Your task to perform on an android device: toggle notification dots Image 0: 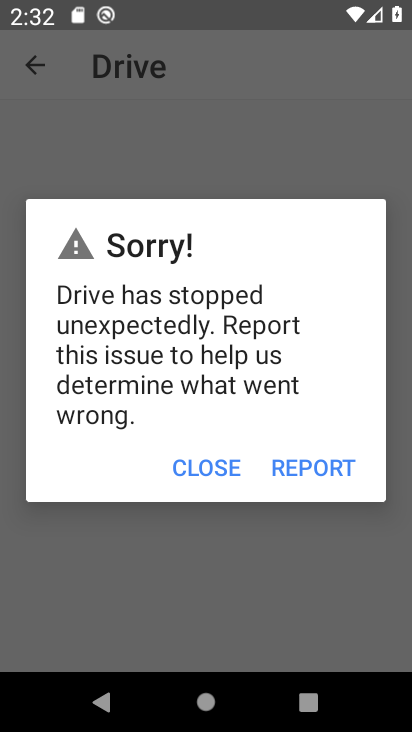
Step 0: press home button
Your task to perform on an android device: toggle notification dots Image 1: 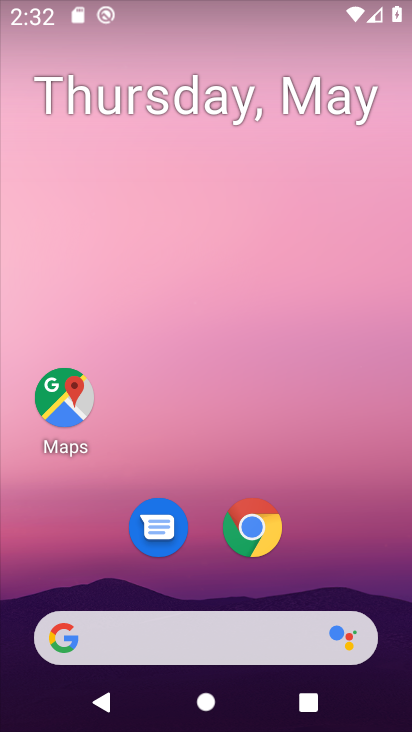
Step 1: drag from (350, 609) to (331, 31)
Your task to perform on an android device: toggle notification dots Image 2: 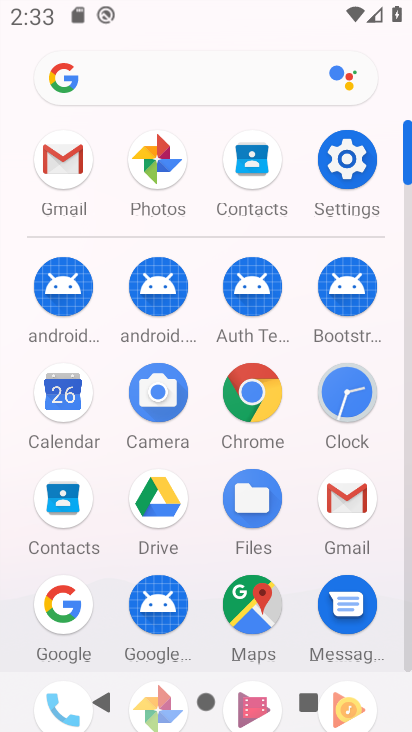
Step 2: click (318, 172)
Your task to perform on an android device: toggle notification dots Image 3: 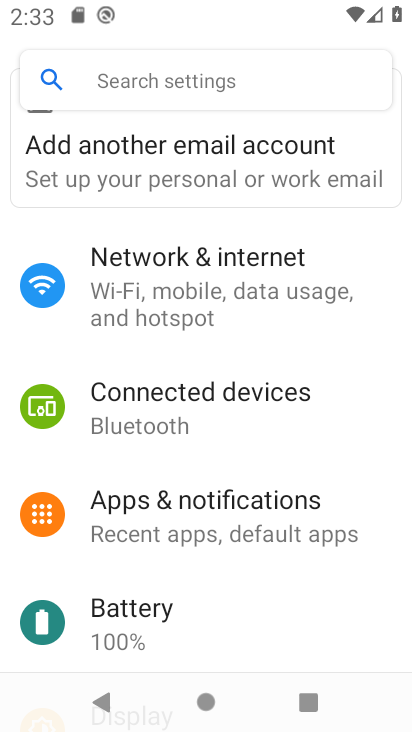
Step 3: click (177, 528)
Your task to perform on an android device: toggle notification dots Image 4: 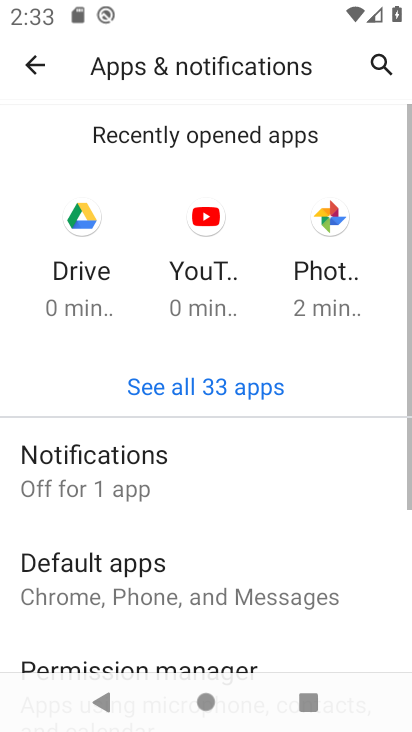
Step 4: click (169, 447)
Your task to perform on an android device: toggle notification dots Image 5: 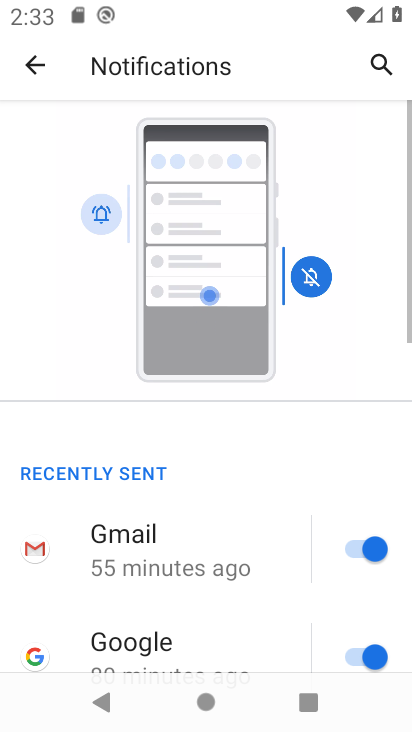
Step 5: drag from (192, 622) to (224, 107)
Your task to perform on an android device: toggle notification dots Image 6: 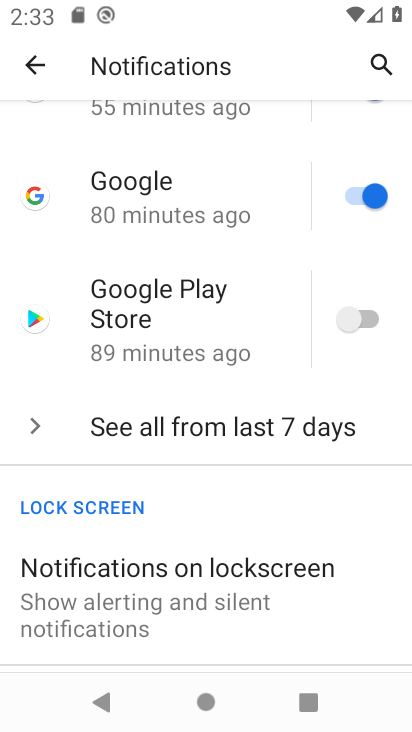
Step 6: drag from (202, 555) to (205, 424)
Your task to perform on an android device: toggle notification dots Image 7: 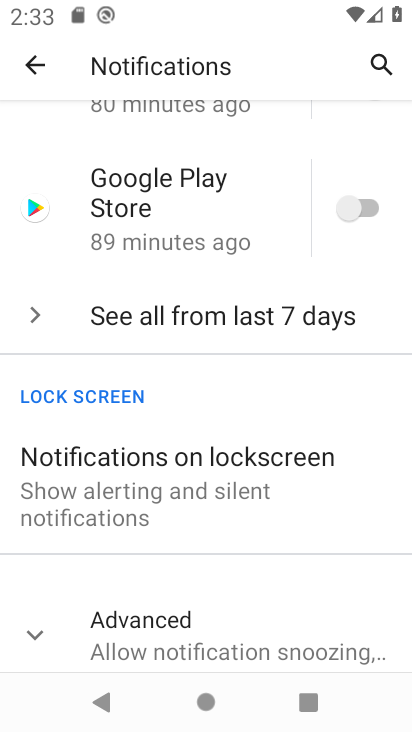
Step 7: drag from (200, 622) to (272, 163)
Your task to perform on an android device: toggle notification dots Image 8: 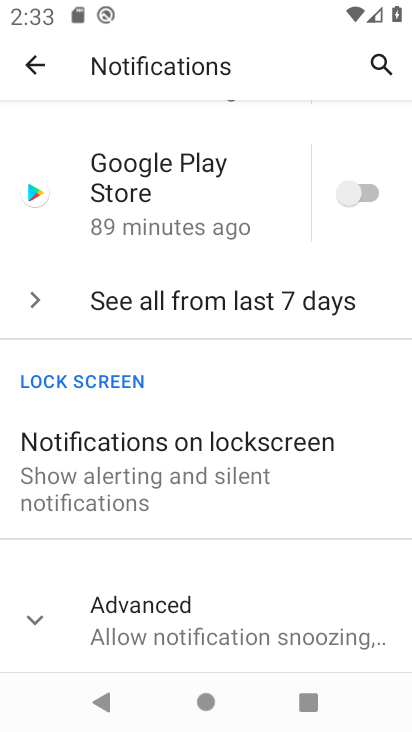
Step 8: click (232, 634)
Your task to perform on an android device: toggle notification dots Image 9: 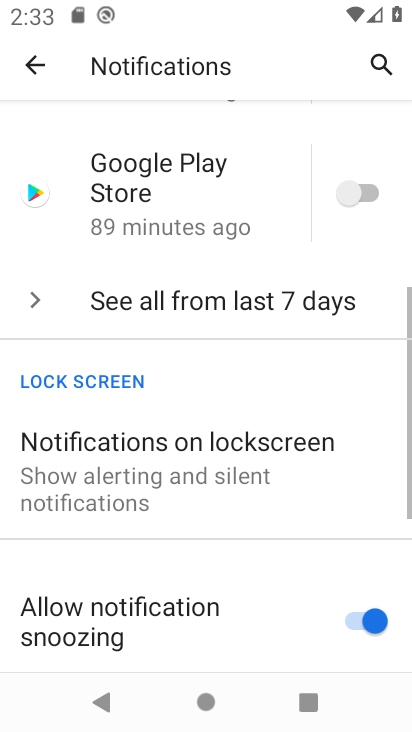
Step 9: drag from (232, 634) to (244, 227)
Your task to perform on an android device: toggle notification dots Image 10: 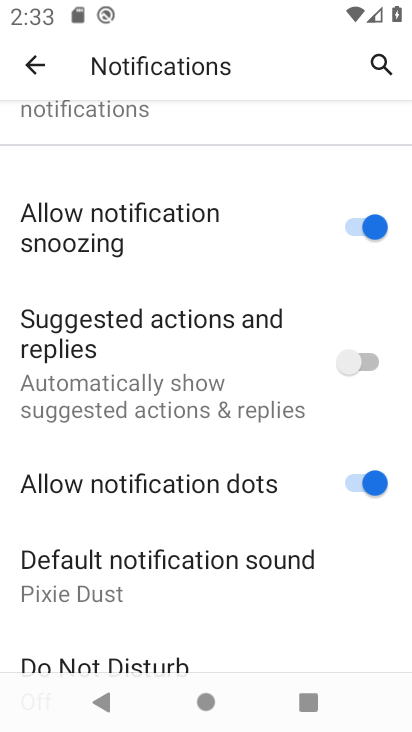
Step 10: click (180, 498)
Your task to perform on an android device: toggle notification dots Image 11: 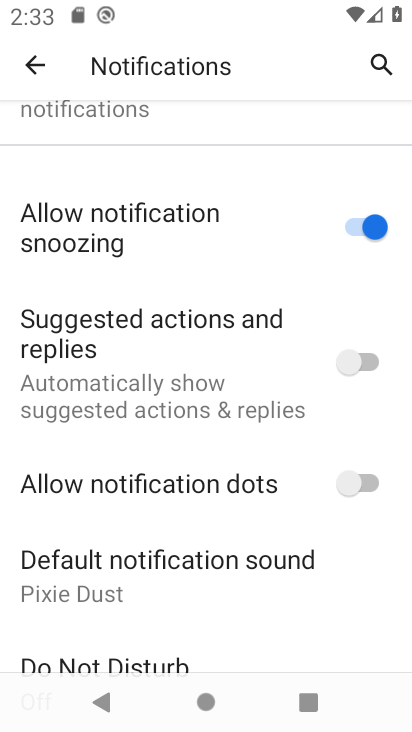
Step 11: task complete